Your task to perform on an android device: show emergency info Image 0: 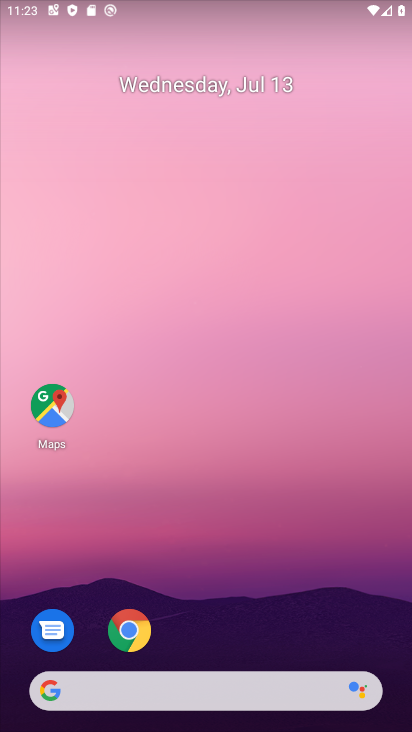
Step 0: drag from (353, 633) to (409, 370)
Your task to perform on an android device: show emergency info Image 1: 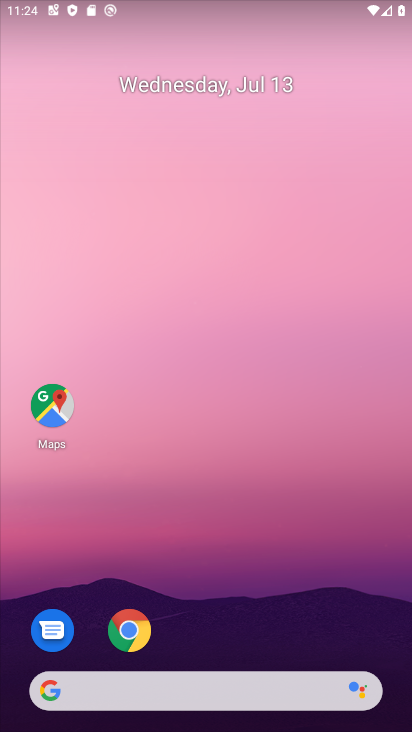
Step 1: drag from (305, 599) to (344, 157)
Your task to perform on an android device: show emergency info Image 2: 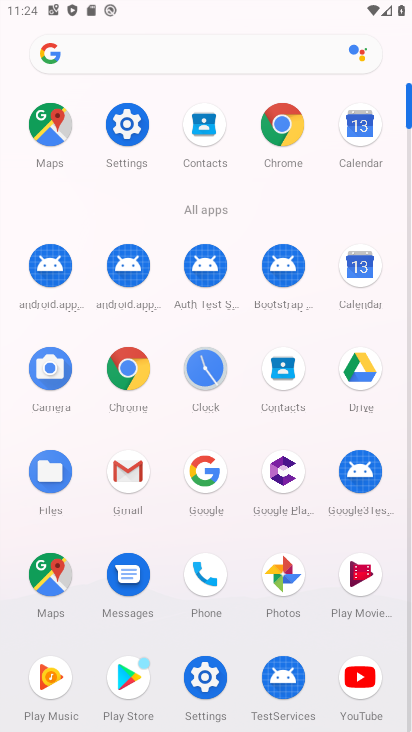
Step 2: click (133, 140)
Your task to perform on an android device: show emergency info Image 3: 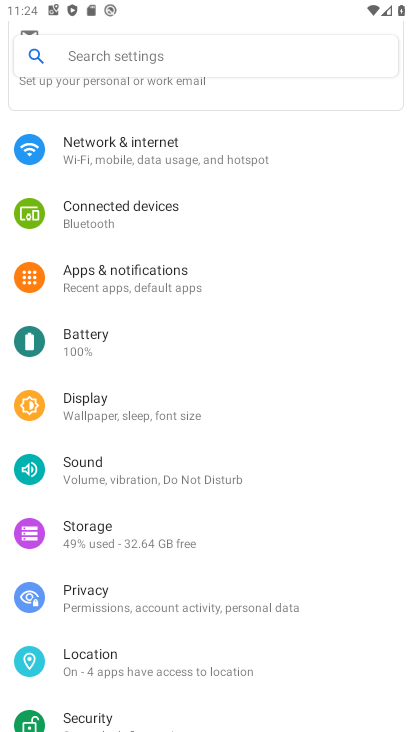
Step 3: drag from (339, 545) to (320, 429)
Your task to perform on an android device: show emergency info Image 4: 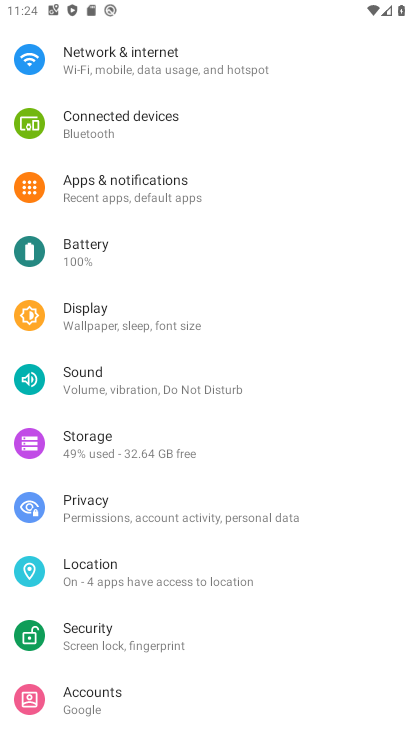
Step 4: drag from (331, 576) to (340, 380)
Your task to perform on an android device: show emergency info Image 5: 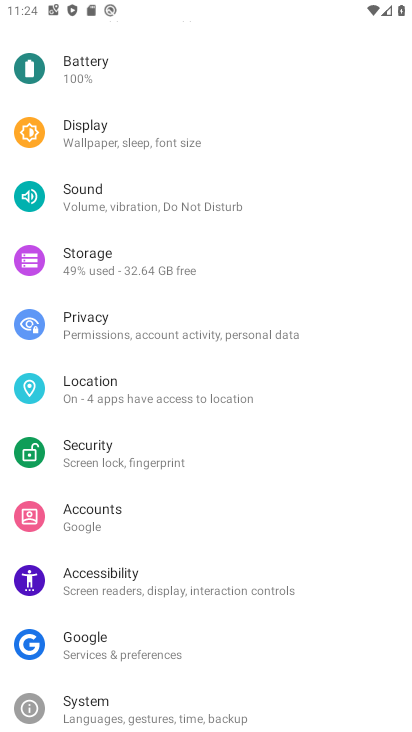
Step 5: drag from (322, 603) to (341, 362)
Your task to perform on an android device: show emergency info Image 6: 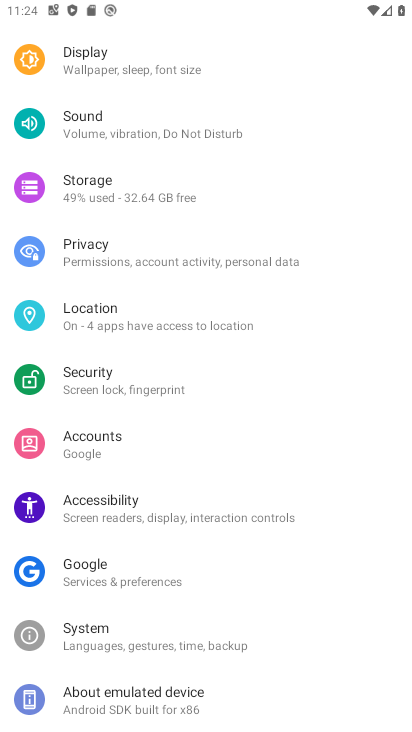
Step 6: drag from (327, 587) to (351, 331)
Your task to perform on an android device: show emergency info Image 7: 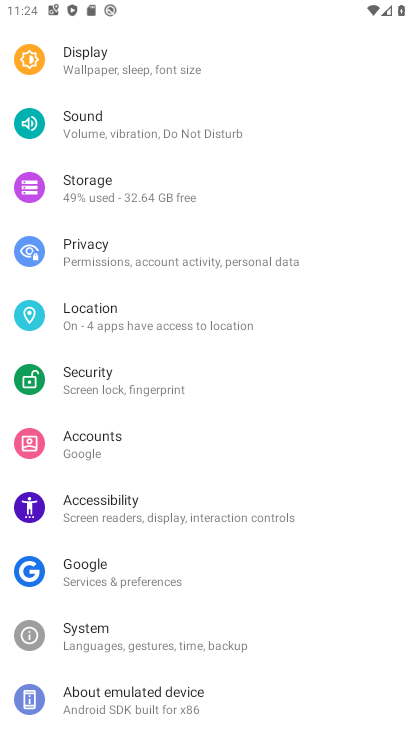
Step 7: drag from (348, 326) to (347, 570)
Your task to perform on an android device: show emergency info Image 8: 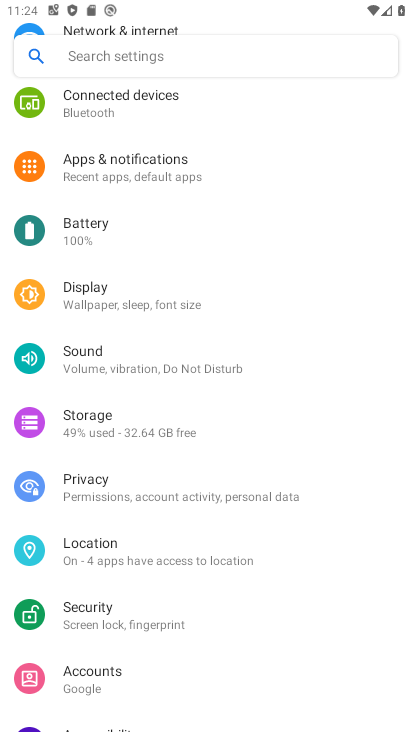
Step 8: drag from (347, 306) to (343, 479)
Your task to perform on an android device: show emergency info Image 9: 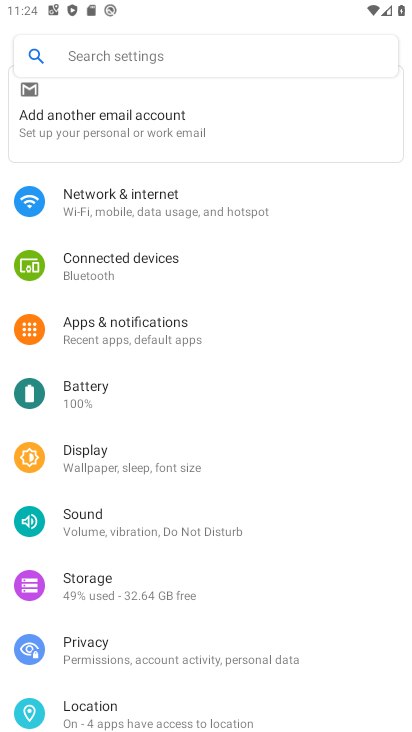
Step 9: drag from (321, 288) to (331, 471)
Your task to perform on an android device: show emergency info Image 10: 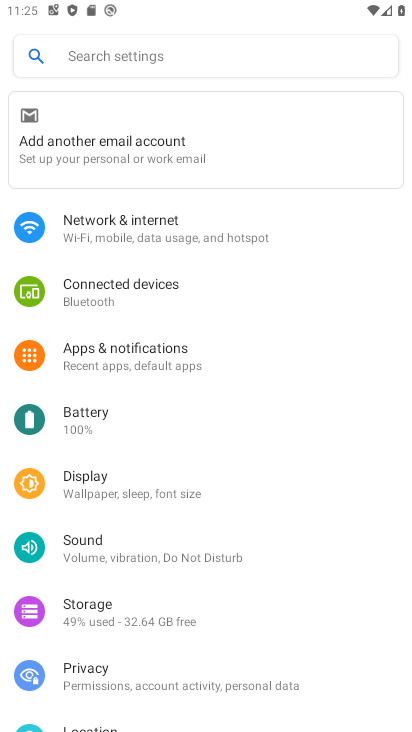
Step 10: drag from (317, 571) to (317, 446)
Your task to perform on an android device: show emergency info Image 11: 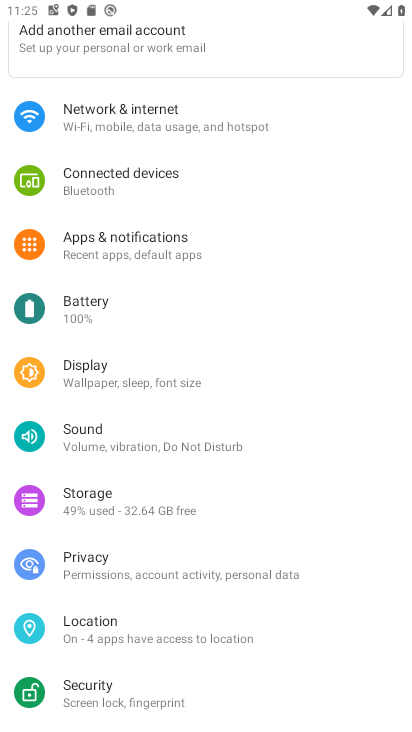
Step 11: drag from (323, 572) to (318, 398)
Your task to perform on an android device: show emergency info Image 12: 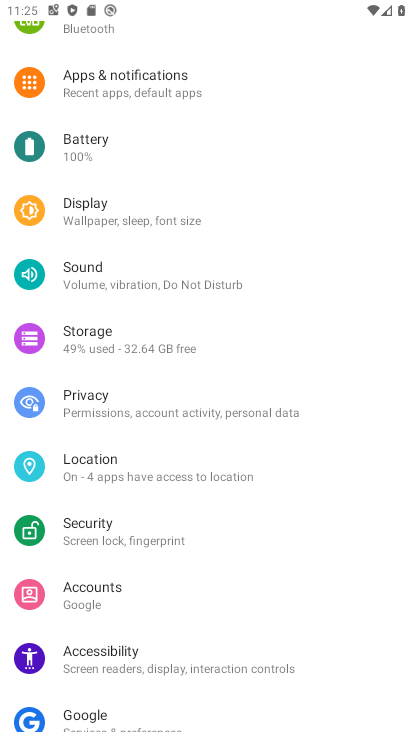
Step 12: drag from (345, 661) to (344, 492)
Your task to perform on an android device: show emergency info Image 13: 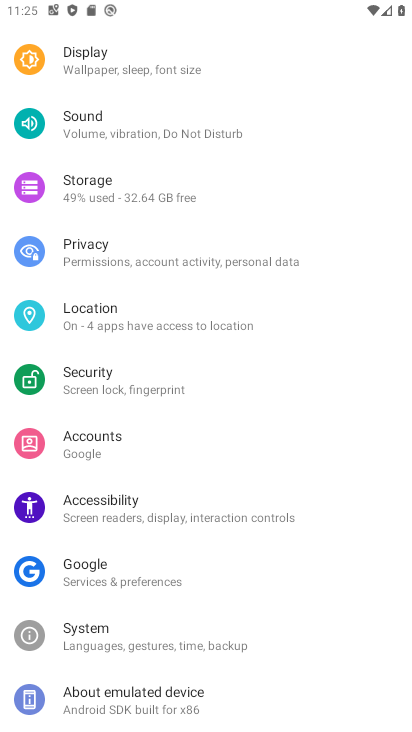
Step 13: drag from (325, 648) to (322, 448)
Your task to perform on an android device: show emergency info Image 14: 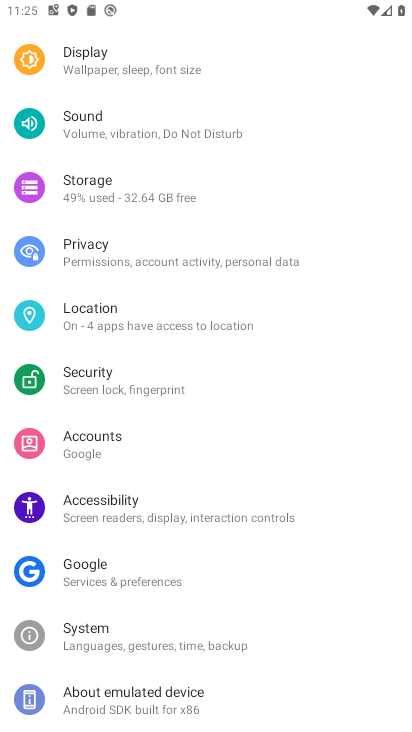
Step 14: click (196, 697)
Your task to perform on an android device: show emergency info Image 15: 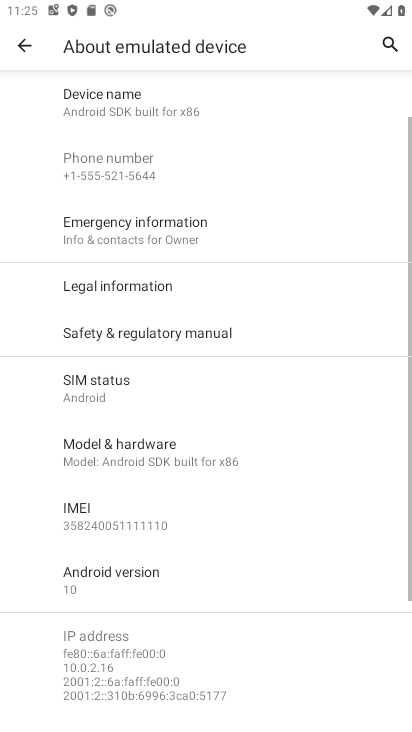
Step 15: drag from (337, 248) to (338, 441)
Your task to perform on an android device: show emergency info Image 16: 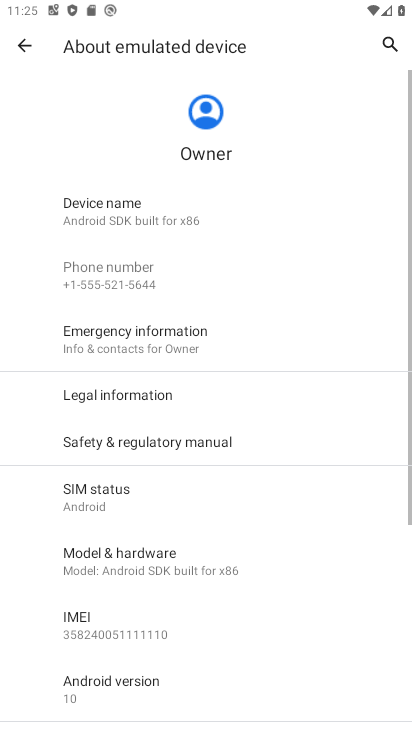
Step 16: click (185, 336)
Your task to perform on an android device: show emergency info Image 17: 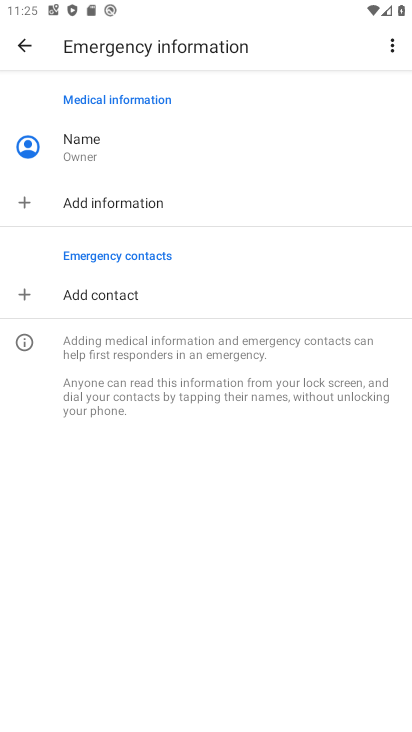
Step 17: task complete